Your task to perform on an android device: Show me recent news Image 0: 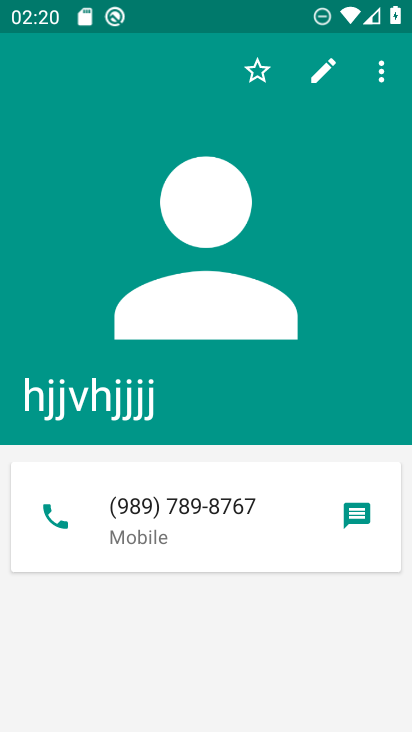
Step 0: press home button
Your task to perform on an android device: Show me recent news Image 1: 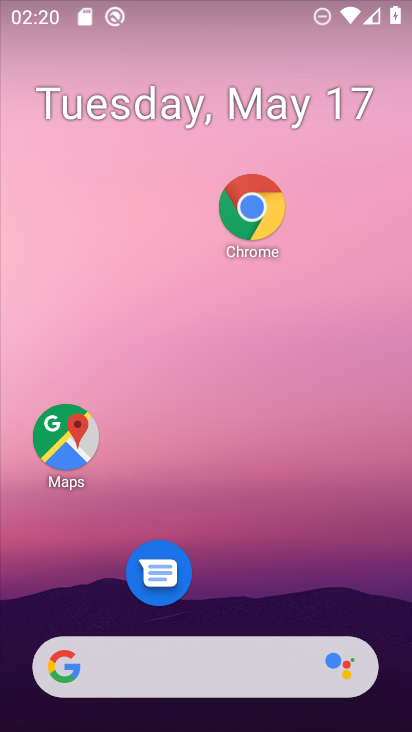
Step 1: drag from (208, 657) to (221, 75)
Your task to perform on an android device: Show me recent news Image 2: 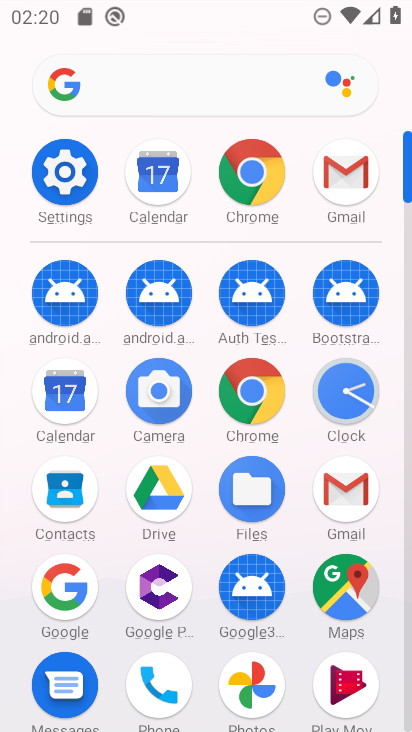
Step 2: click (253, 392)
Your task to perform on an android device: Show me recent news Image 3: 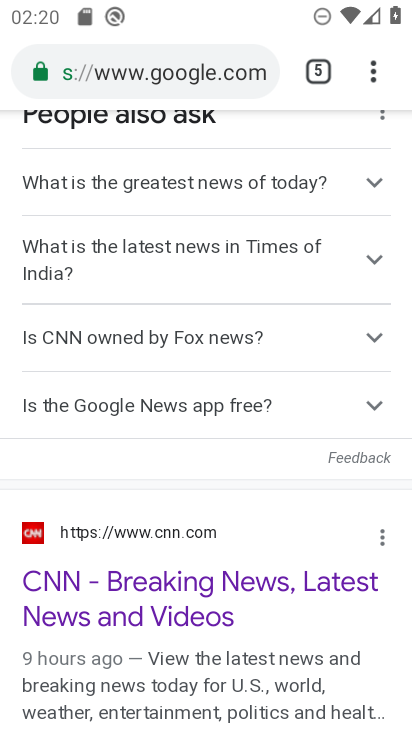
Step 3: click (221, 80)
Your task to perform on an android device: Show me recent news Image 4: 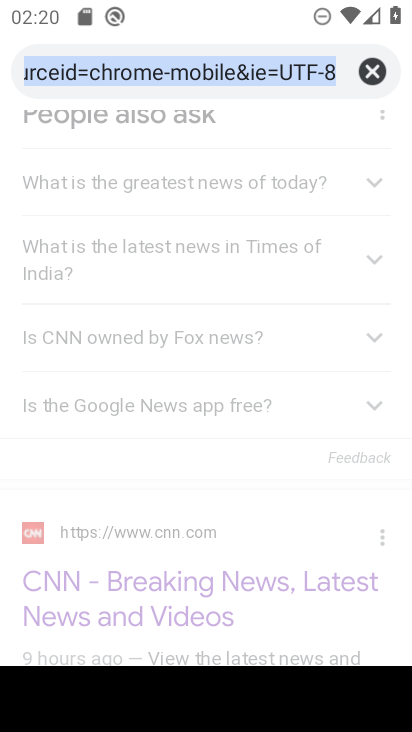
Step 4: click (369, 70)
Your task to perform on an android device: Show me recent news Image 5: 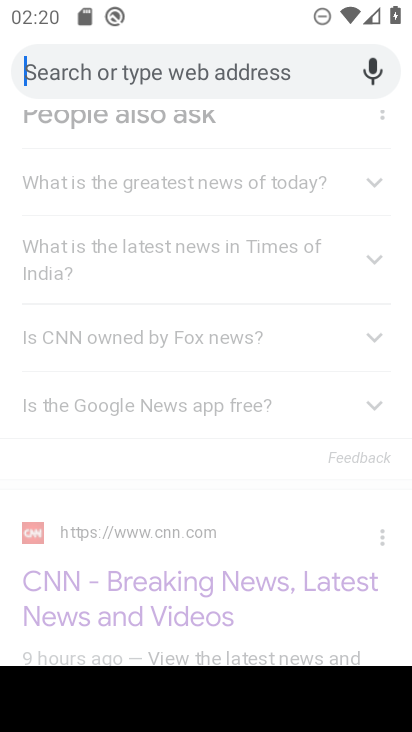
Step 5: task complete